Your task to perform on an android device: clear all cookies in the chrome app Image 0: 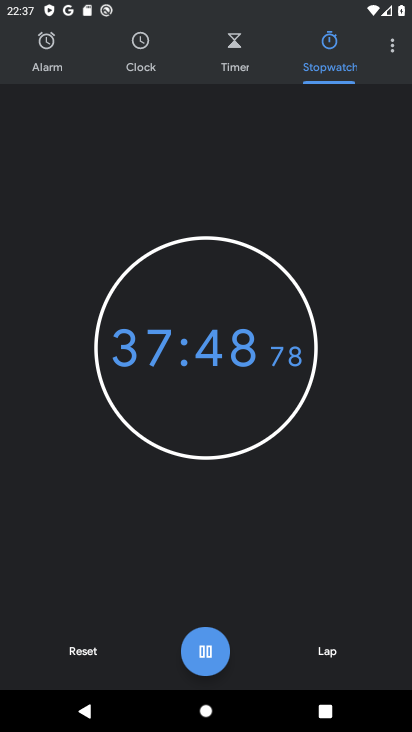
Step 0: press home button
Your task to perform on an android device: clear all cookies in the chrome app Image 1: 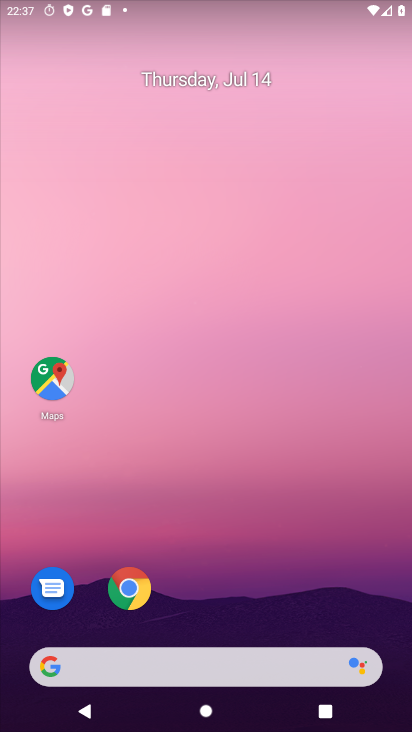
Step 1: click (128, 586)
Your task to perform on an android device: clear all cookies in the chrome app Image 2: 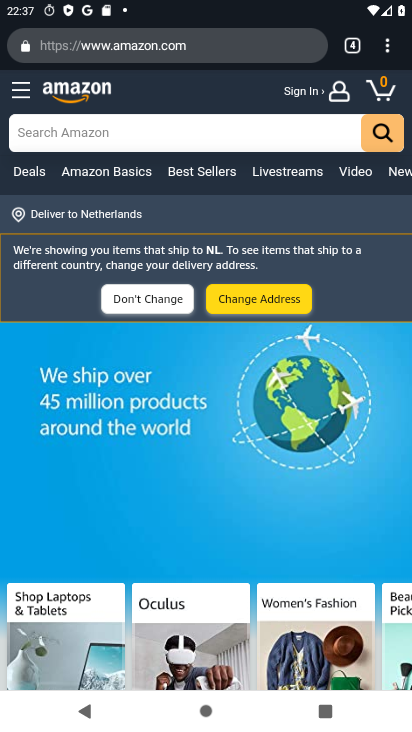
Step 2: click (382, 45)
Your task to perform on an android device: clear all cookies in the chrome app Image 3: 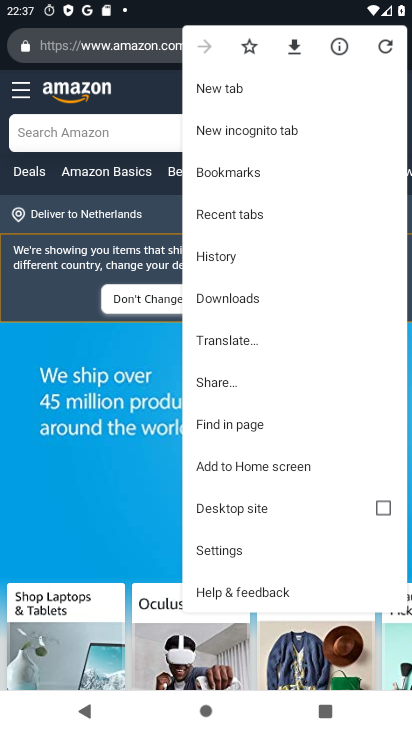
Step 3: click (244, 552)
Your task to perform on an android device: clear all cookies in the chrome app Image 4: 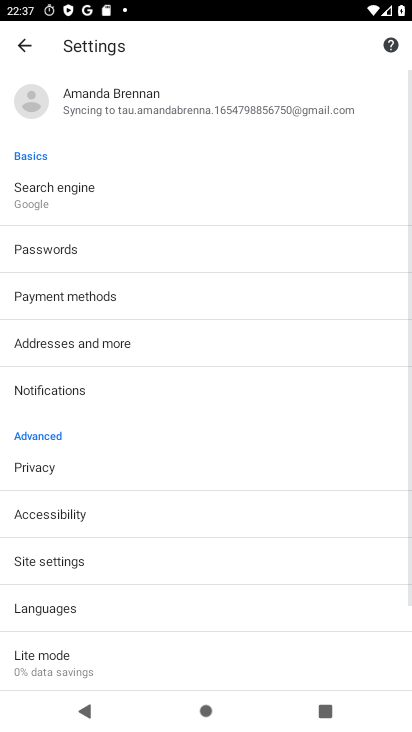
Step 4: click (77, 571)
Your task to perform on an android device: clear all cookies in the chrome app Image 5: 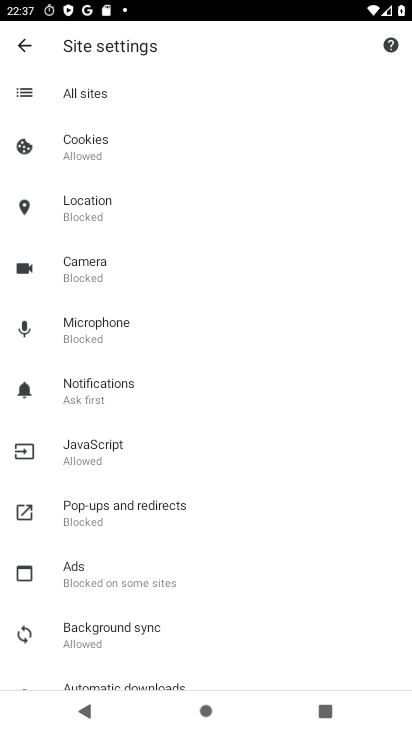
Step 5: click (119, 149)
Your task to perform on an android device: clear all cookies in the chrome app Image 6: 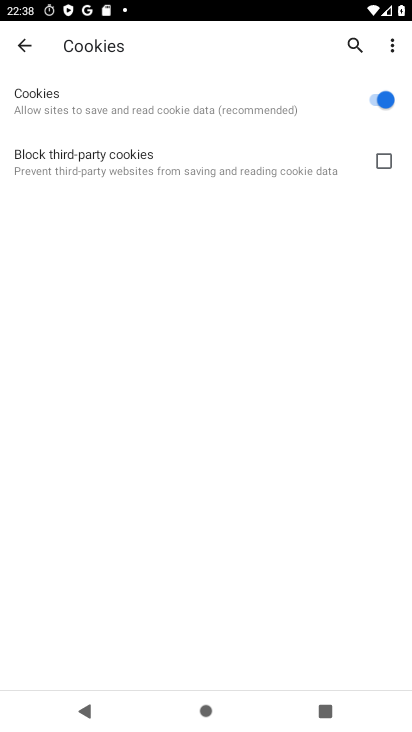
Step 6: task complete